Your task to perform on an android device: Open network settings Image 0: 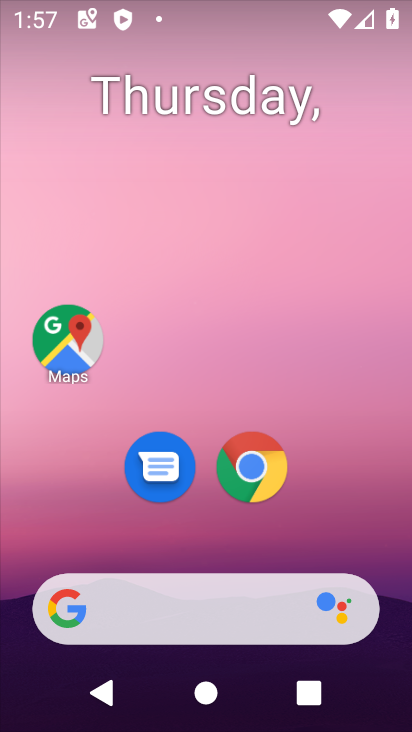
Step 0: drag from (375, 543) to (338, 137)
Your task to perform on an android device: Open network settings Image 1: 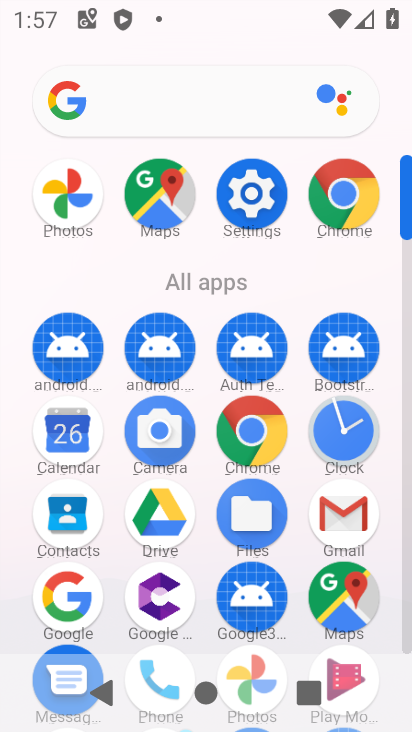
Step 1: click (242, 196)
Your task to perform on an android device: Open network settings Image 2: 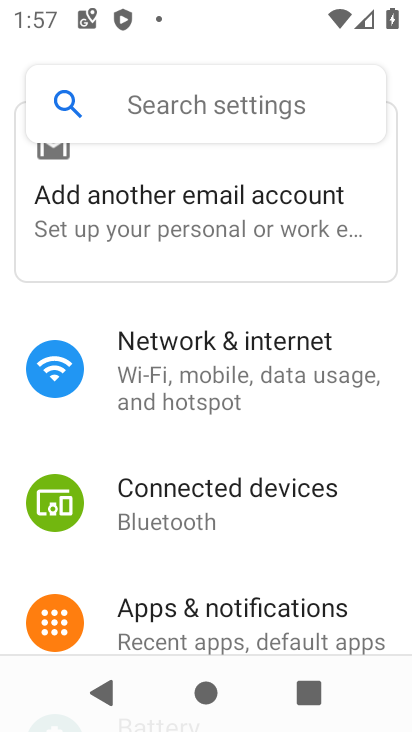
Step 2: click (250, 365)
Your task to perform on an android device: Open network settings Image 3: 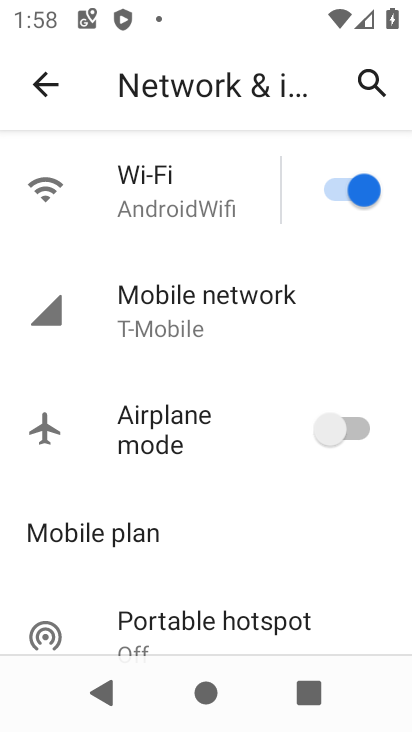
Step 3: task complete